Your task to perform on an android device: Open the calendar and show me this week's events? Image 0: 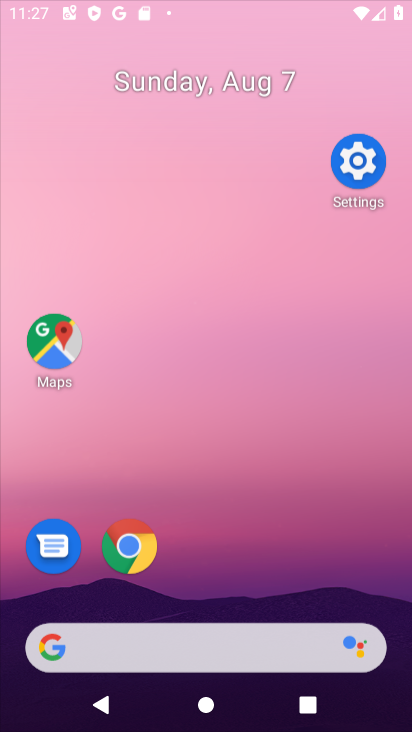
Step 0: press back button
Your task to perform on an android device: Open the calendar and show me this week's events? Image 1: 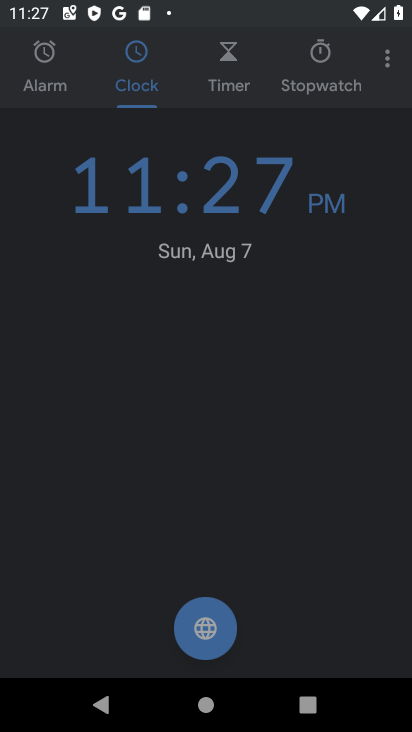
Step 1: press back button
Your task to perform on an android device: Open the calendar and show me this week's events? Image 2: 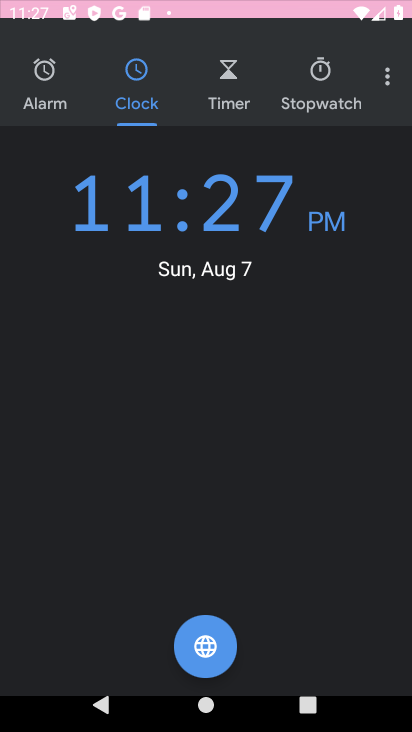
Step 2: click (313, 166)
Your task to perform on an android device: Open the calendar and show me this week's events? Image 3: 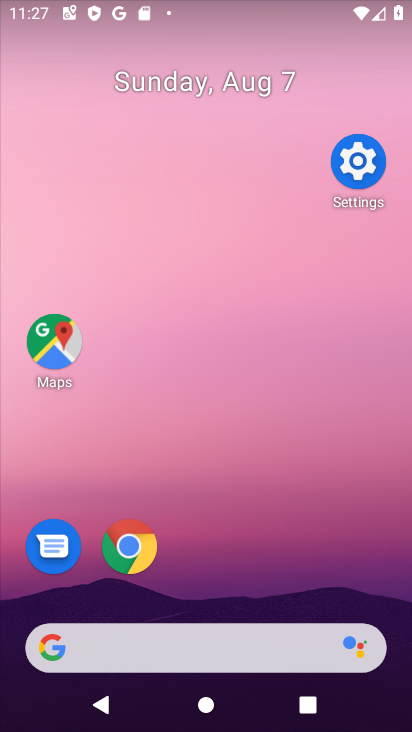
Step 3: press back button
Your task to perform on an android device: Open the calendar and show me this week's events? Image 4: 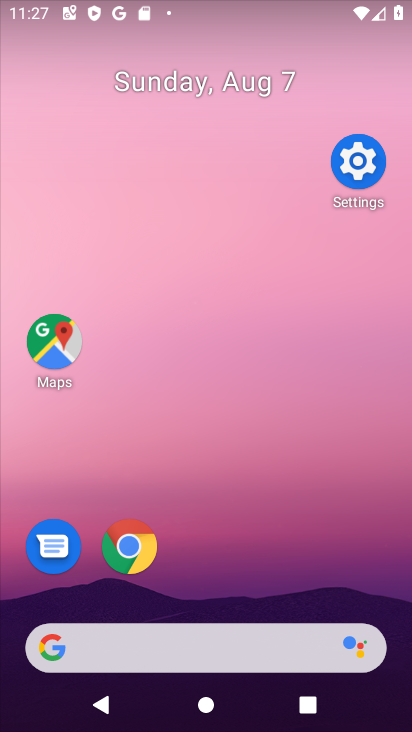
Step 4: drag from (175, 202) to (276, 209)
Your task to perform on an android device: Open the calendar and show me this week's events? Image 5: 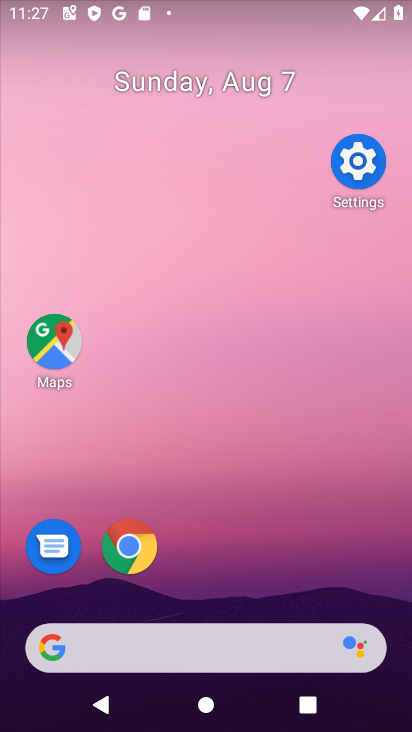
Step 5: click (238, 125)
Your task to perform on an android device: Open the calendar and show me this week's events? Image 6: 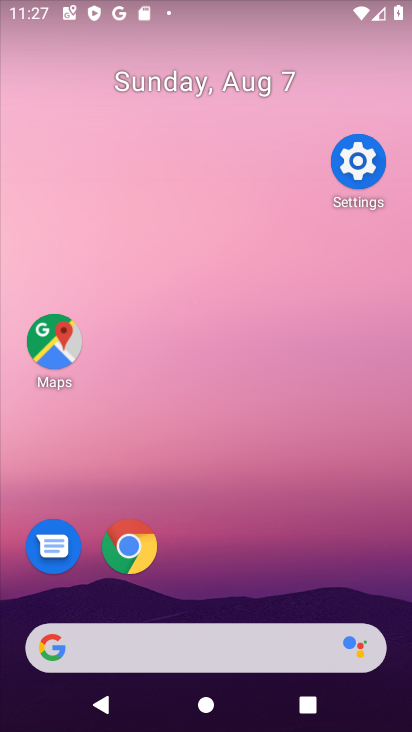
Step 6: drag from (250, 282) to (236, 125)
Your task to perform on an android device: Open the calendar and show me this week's events? Image 7: 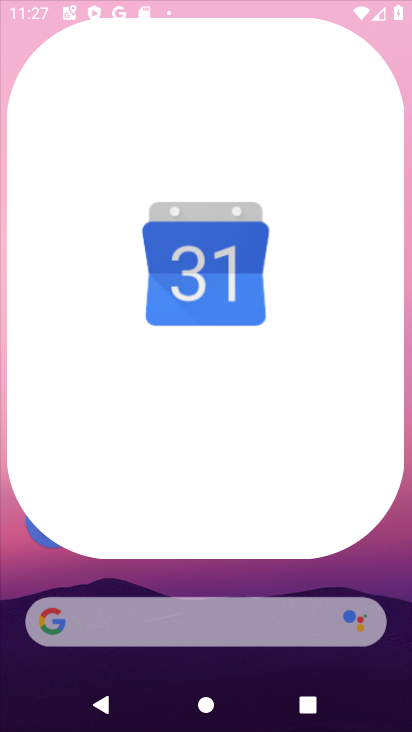
Step 7: drag from (143, 431) to (167, 230)
Your task to perform on an android device: Open the calendar and show me this week's events? Image 8: 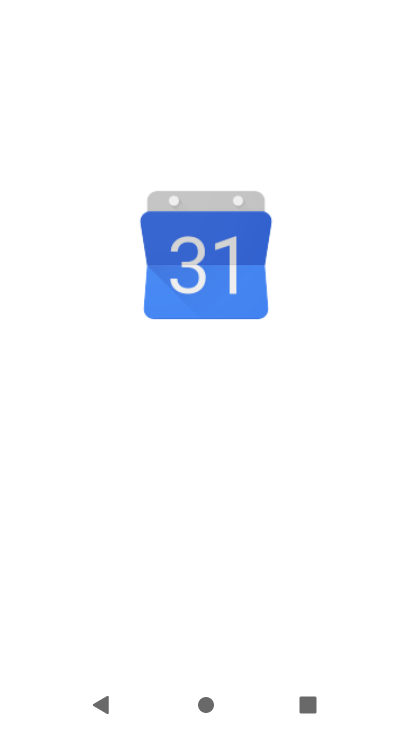
Step 8: click (264, 441)
Your task to perform on an android device: Open the calendar and show me this week's events? Image 9: 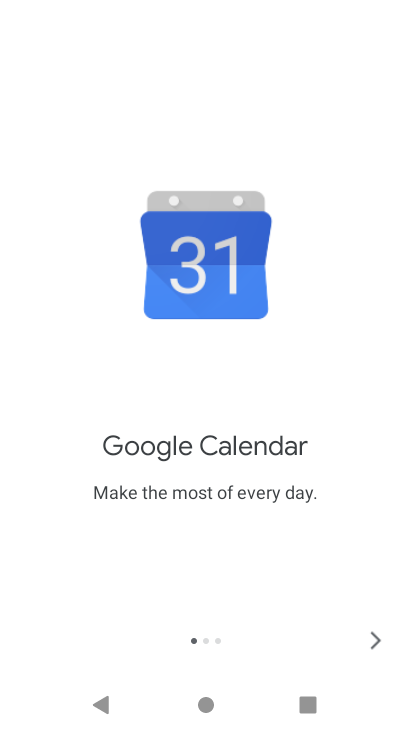
Step 9: click (397, 641)
Your task to perform on an android device: Open the calendar and show me this week's events? Image 10: 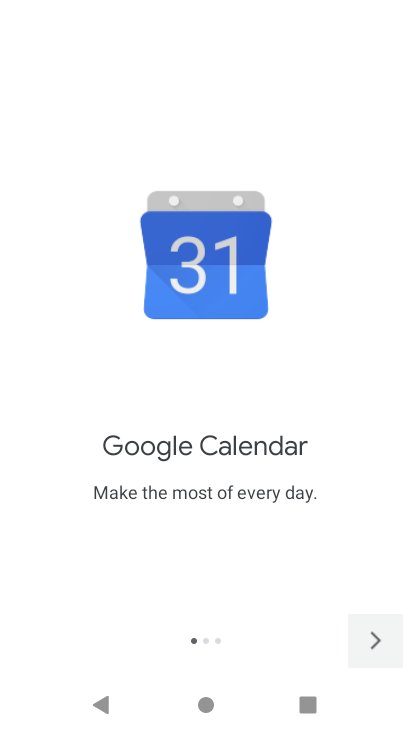
Step 10: click (388, 638)
Your task to perform on an android device: Open the calendar and show me this week's events? Image 11: 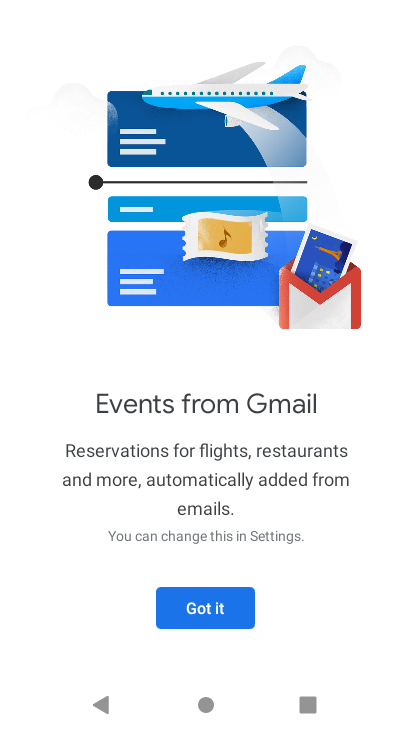
Step 11: click (225, 597)
Your task to perform on an android device: Open the calendar and show me this week's events? Image 12: 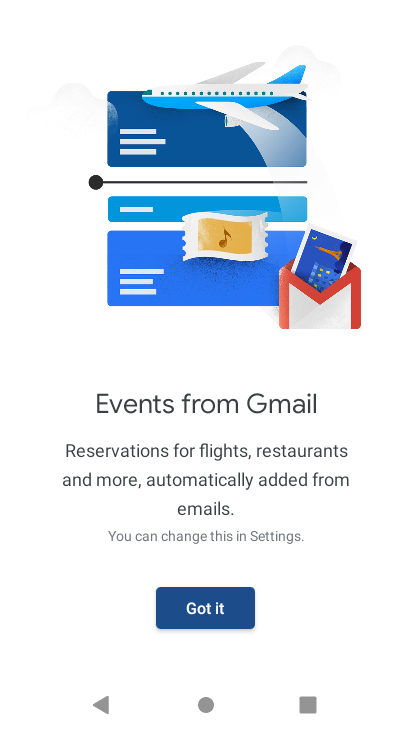
Step 12: click (232, 604)
Your task to perform on an android device: Open the calendar and show me this week's events? Image 13: 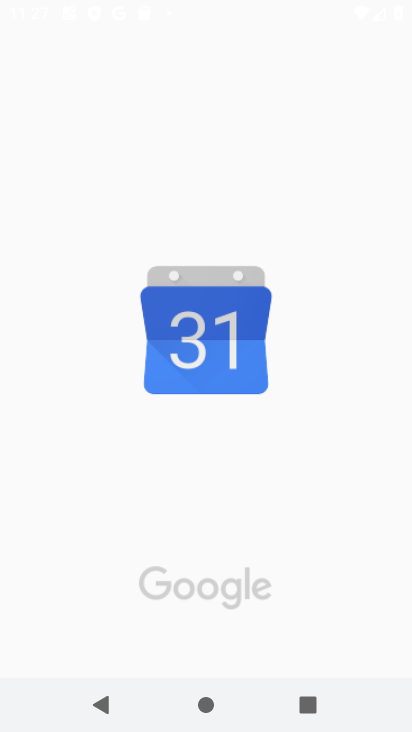
Step 13: click (233, 605)
Your task to perform on an android device: Open the calendar and show me this week's events? Image 14: 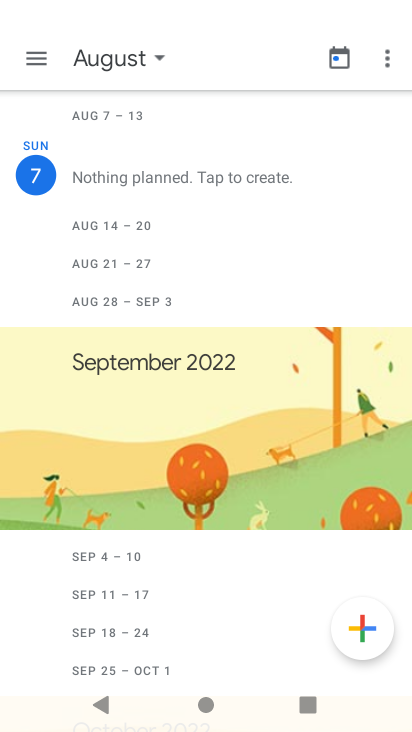
Step 14: click (159, 56)
Your task to perform on an android device: Open the calendar and show me this week's events? Image 15: 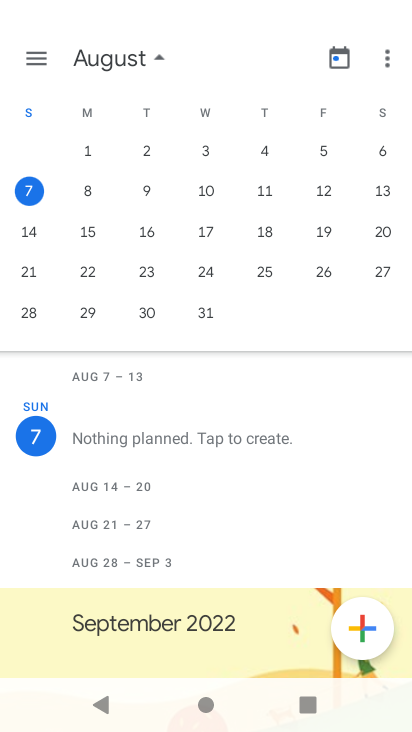
Step 15: click (90, 195)
Your task to perform on an android device: Open the calendar and show me this week's events? Image 16: 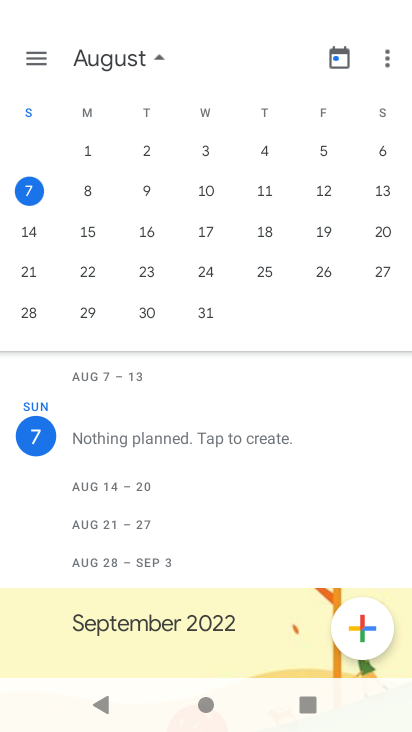
Step 16: click (208, 191)
Your task to perform on an android device: Open the calendar and show me this week's events? Image 17: 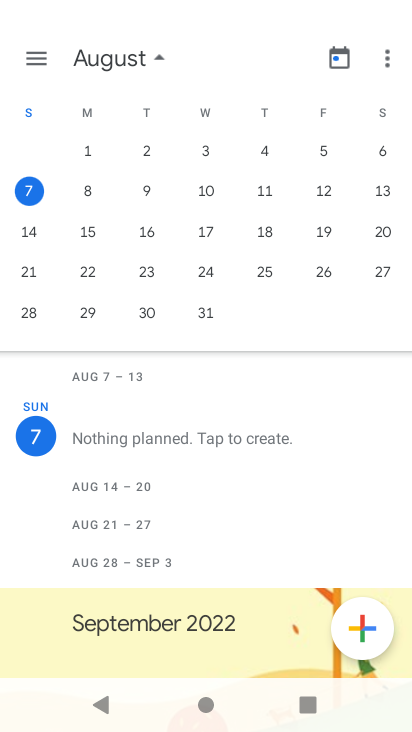
Step 17: click (213, 187)
Your task to perform on an android device: Open the calendar and show me this week's events? Image 18: 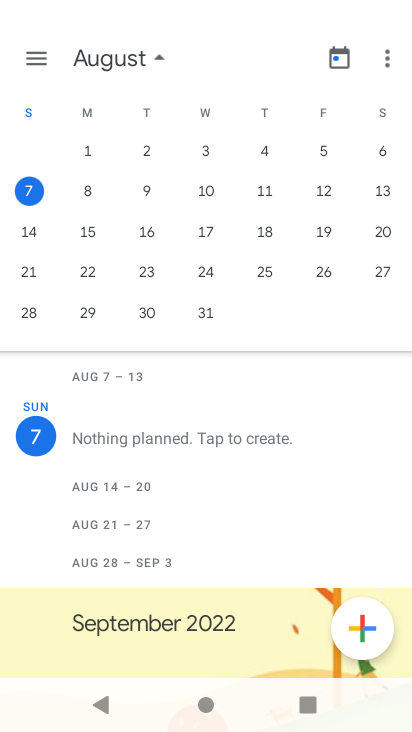
Step 18: click (214, 192)
Your task to perform on an android device: Open the calendar and show me this week's events? Image 19: 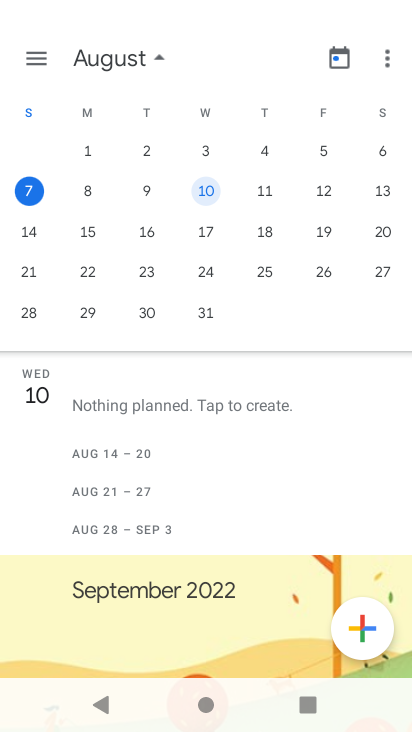
Step 19: task complete